Your task to perform on an android device: Open Google Image 0: 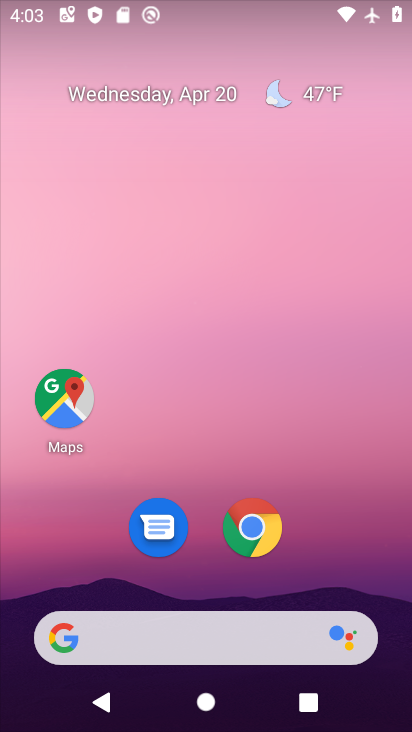
Step 0: drag from (307, 395) to (307, 46)
Your task to perform on an android device: Open Google Image 1: 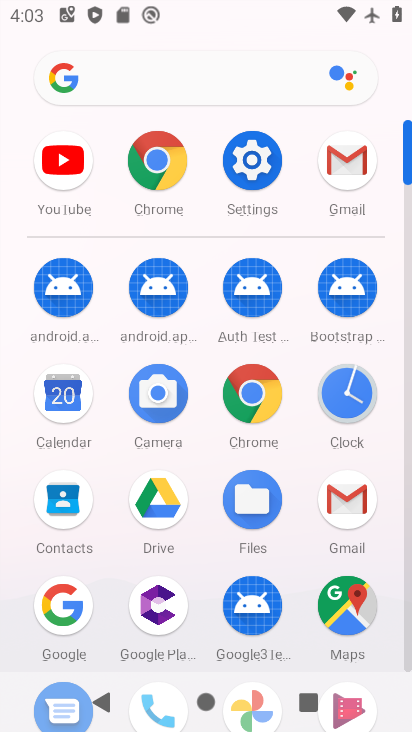
Step 1: click (73, 617)
Your task to perform on an android device: Open Google Image 2: 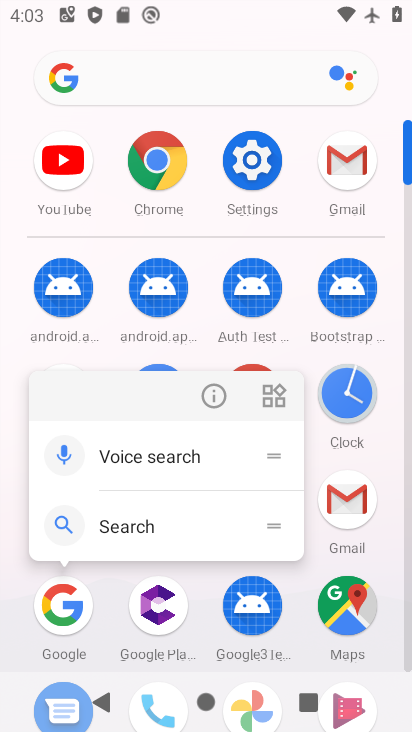
Step 2: click (78, 609)
Your task to perform on an android device: Open Google Image 3: 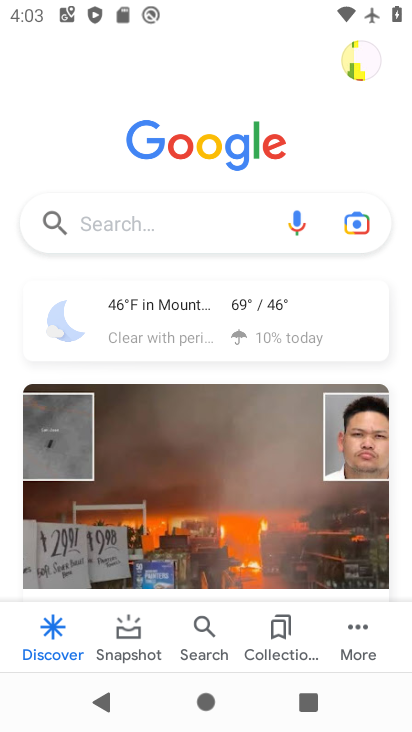
Step 3: task complete